Your task to perform on an android device: check the backup settings in the google photos Image 0: 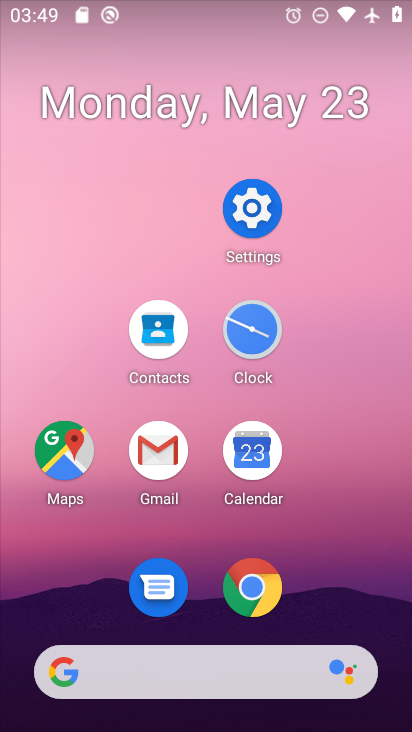
Step 0: drag from (365, 605) to (402, 8)
Your task to perform on an android device: check the backup settings in the google photos Image 1: 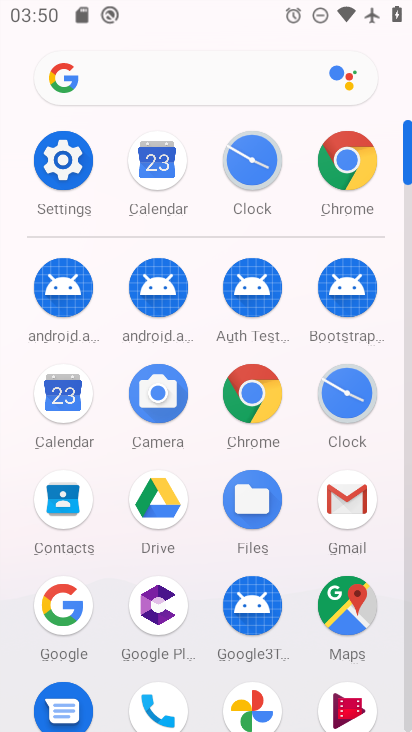
Step 1: click (251, 717)
Your task to perform on an android device: check the backup settings in the google photos Image 2: 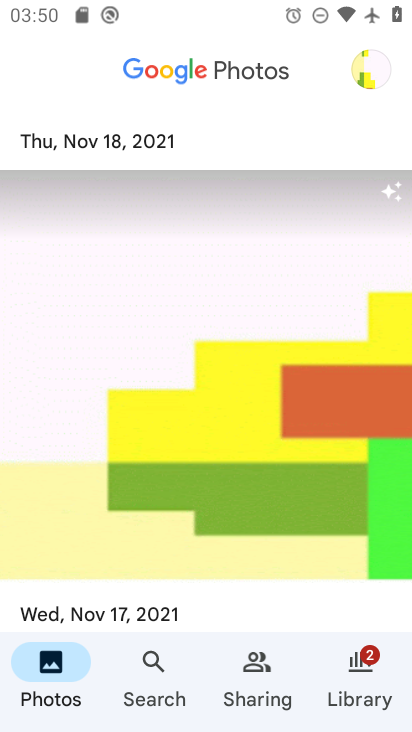
Step 2: click (365, 80)
Your task to perform on an android device: check the backup settings in the google photos Image 3: 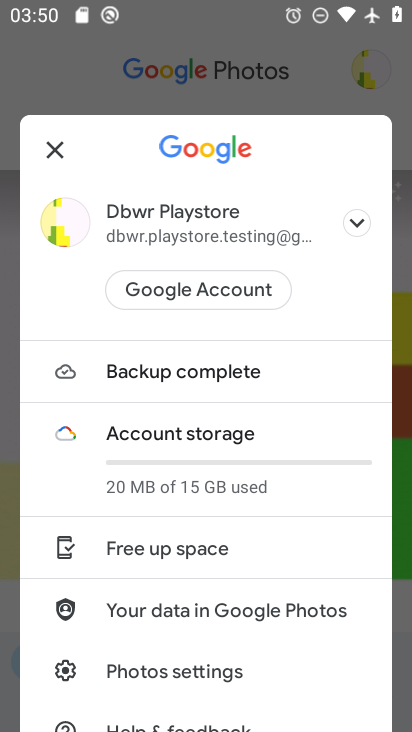
Step 3: task complete